Your task to perform on an android device: Open privacy settings Image 0: 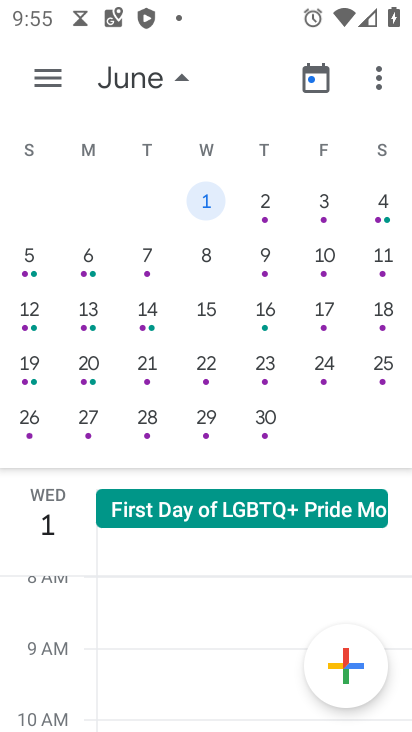
Step 0: press back button
Your task to perform on an android device: Open privacy settings Image 1: 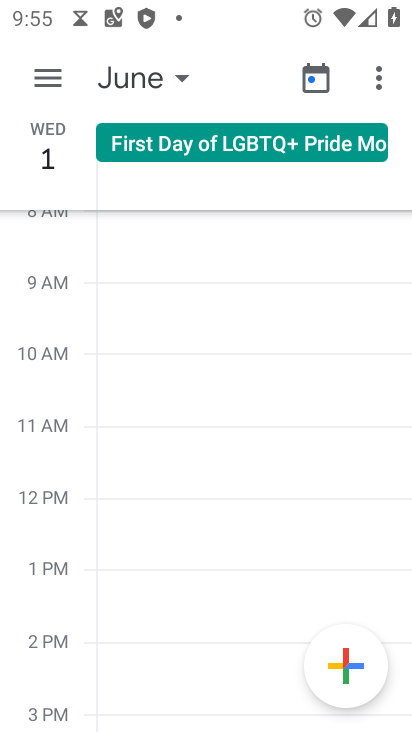
Step 1: press home button
Your task to perform on an android device: Open privacy settings Image 2: 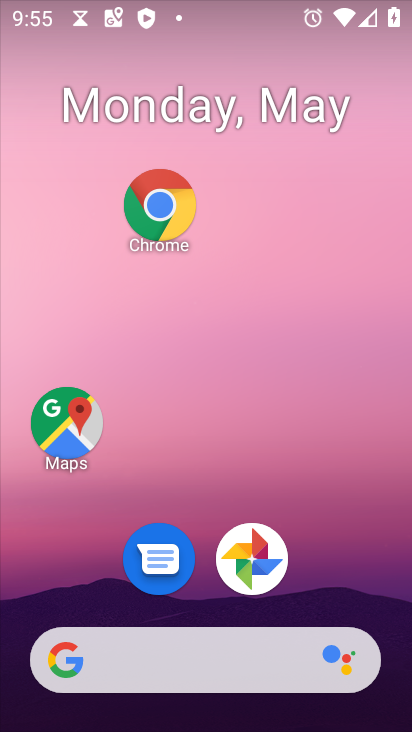
Step 2: drag from (322, 620) to (170, 93)
Your task to perform on an android device: Open privacy settings Image 3: 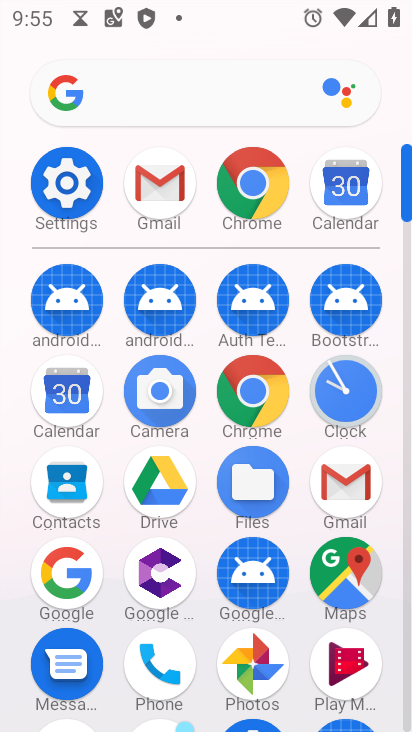
Step 3: click (64, 186)
Your task to perform on an android device: Open privacy settings Image 4: 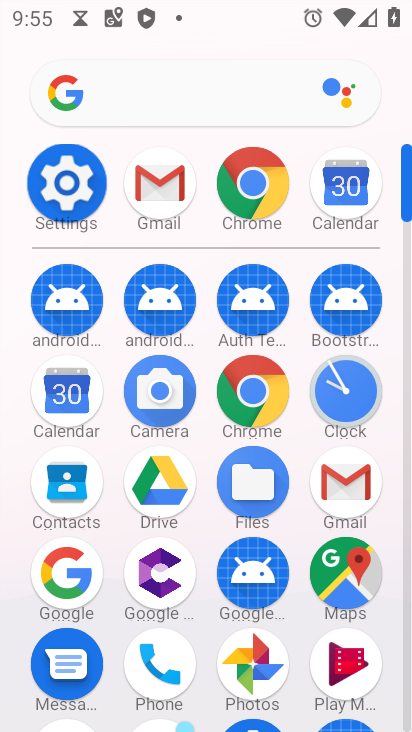
Step 4: click (51, 192)
Your task to perform on an android device: Open privacy settings Image 5: 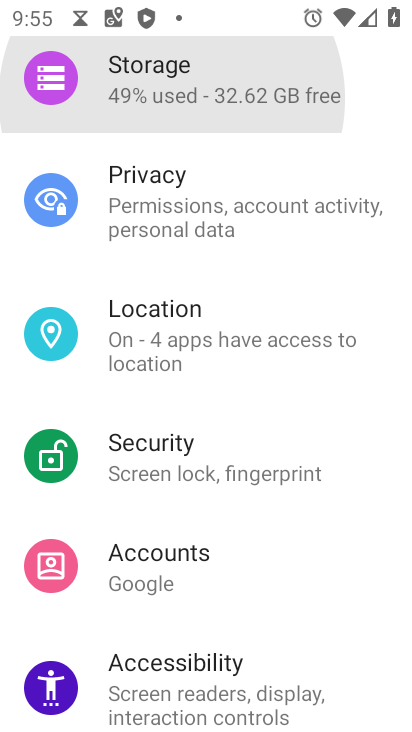
Step 5: click (51, 187)
Your task to perform on an android device: Open privacy settings Image 6: 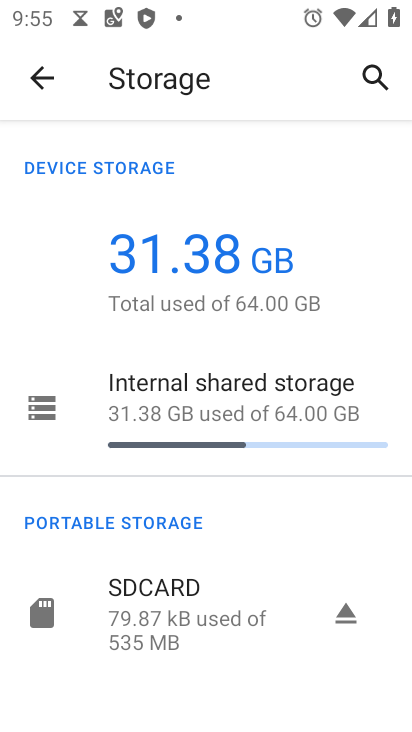
Step 6: click (42, 83)
Your task to perform on an android device: Open privacy settings Image 7: 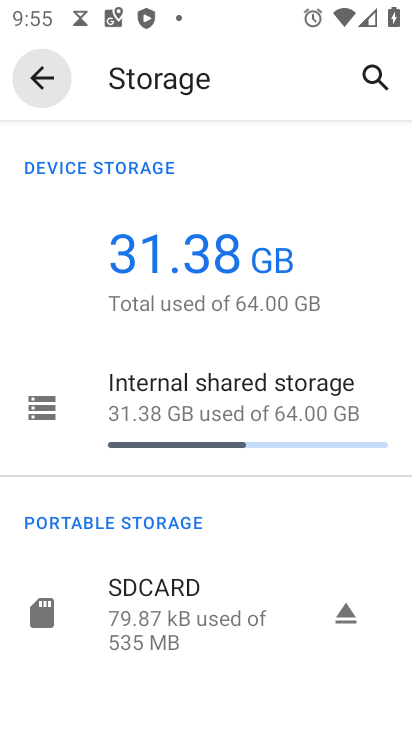
Step 7: click (43, 83)
Your task to perform on an android device: Open privacy settings Image 8: 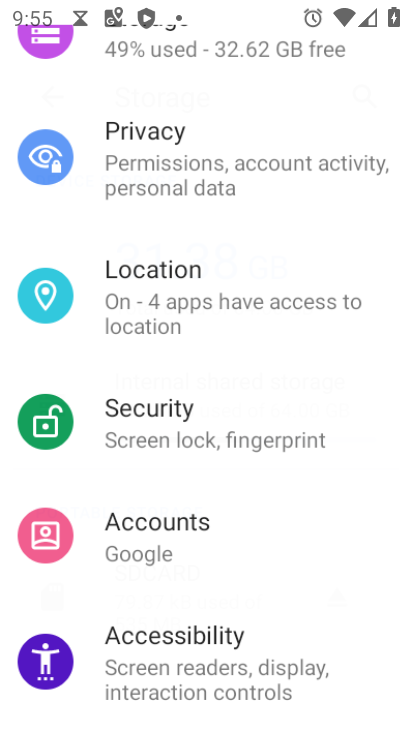
Step 8: click (44, 83)
Your task to perform on an android device: Open privacy settings Image 9: 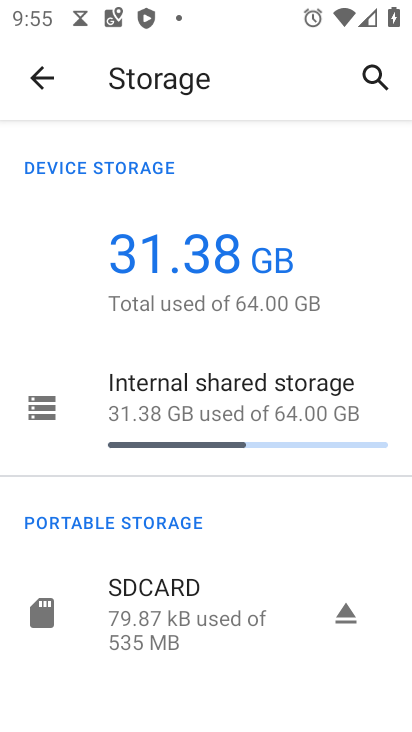
Step 9: click (30, 78)
Your task to perform on an android device: Open privacy settings Image 10: 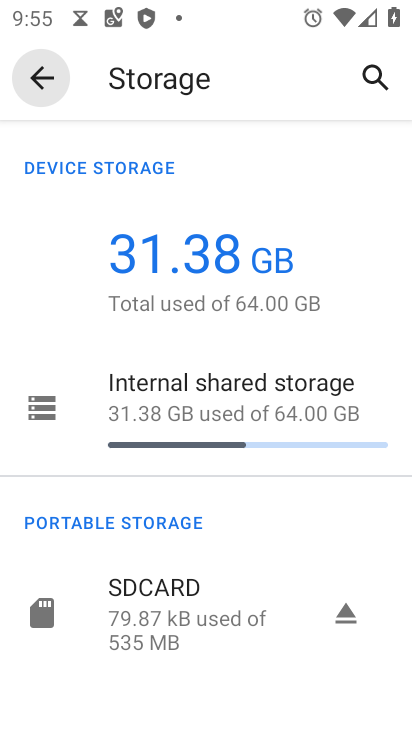
Step 10: click (37, 83)
Your task to perform on an android device: Open privacy settings Image 11: 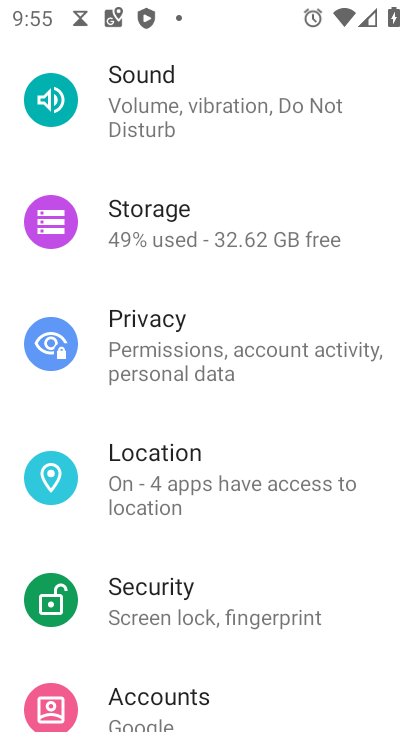
Step 11: click (150, 348)
Your task to perform on an android device: Open privacy settings Image 12: 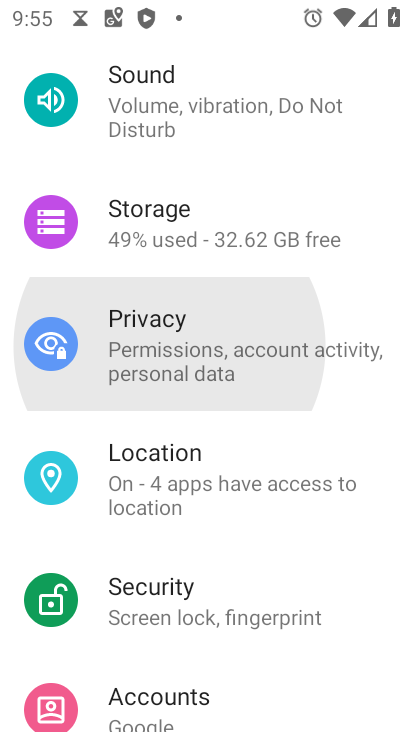
Step 12: click (149, 345)
Your task to perform on an android device: Open privacy settings Image 13: 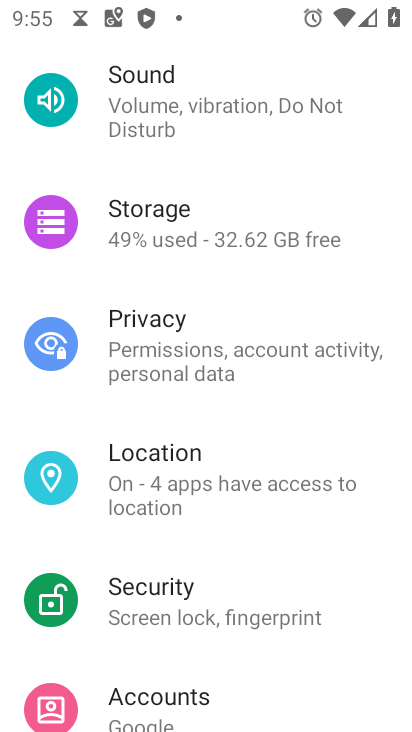
Step 13: click (145, 336)
Your task to perform on an android device: Open privacy settings Image 14: 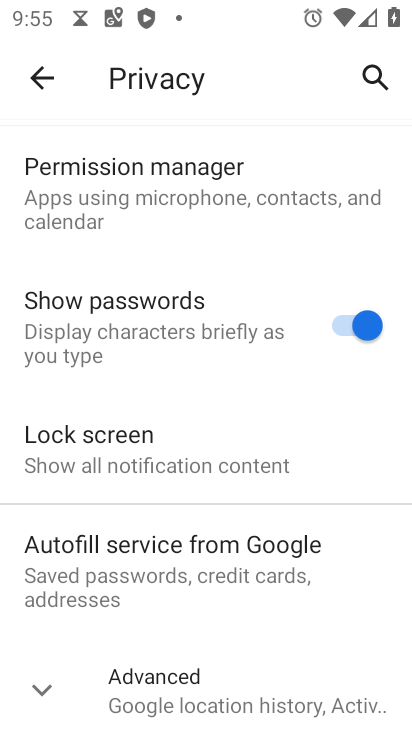
Step 14: task complete